Your task to perform on an android device: Open the web browser Image 0: 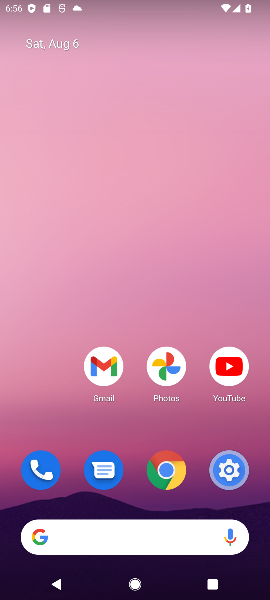
Step 0: press home button
Your task to perform on an android device: Open the web browser Image 1: 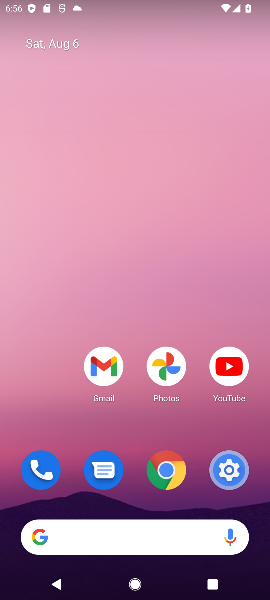
Step 1: click (157, 488)
Your task to perform on an android device: Open the web browser Image 2: 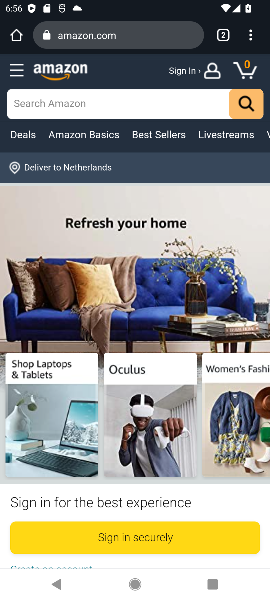
Step 2: click (163, 43)
Your task to perform on an android device: Open the web browser Image 3: 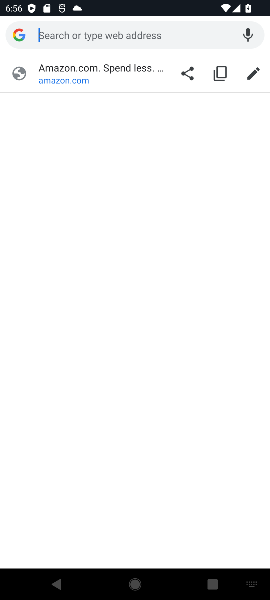
Step 3: type "web browser"
Your task to perform on an android device: Open the web browser Image 4: 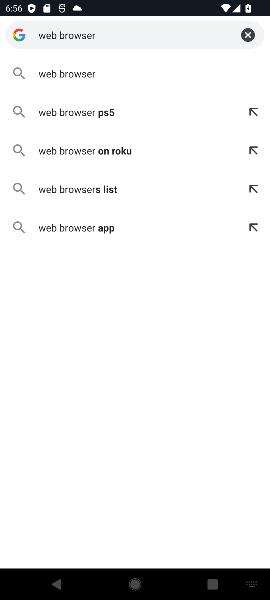
Step 4: click (87, 65)
Your task to perform on an android device: Open the web browser Image 5: 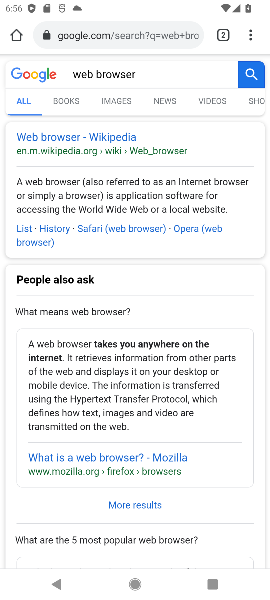
Step 5: task complete